Your task to perform on an android device: open sync settings in chrome Image 0: 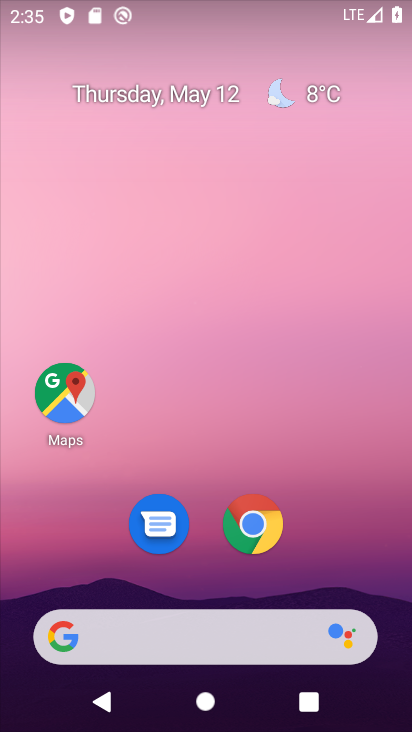
Step 0: click (258, 528)
Your task to perform on an android device: open sync settings in chrome Image 1: 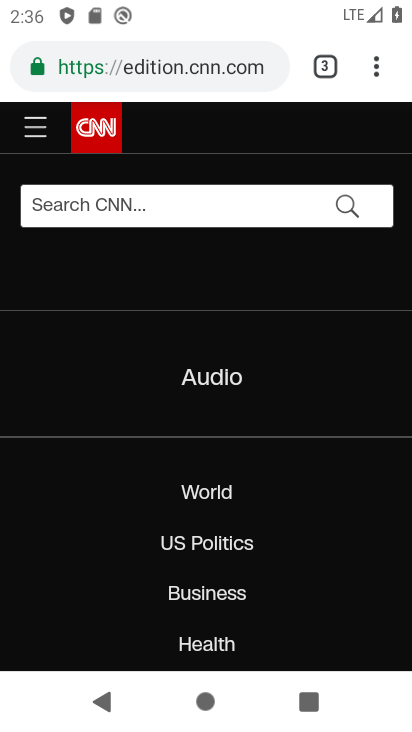
Step 1: click (372, 60)
Your task to perform on an android device: open sync settings in chrome Image 2: 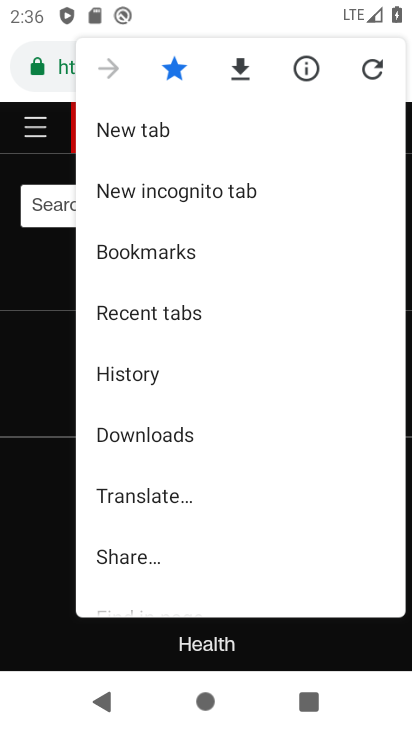
Step 2: drag from (278, 408) to (263, 165)
Your task to perform on an android device: open sync settings in chrome Image 3: 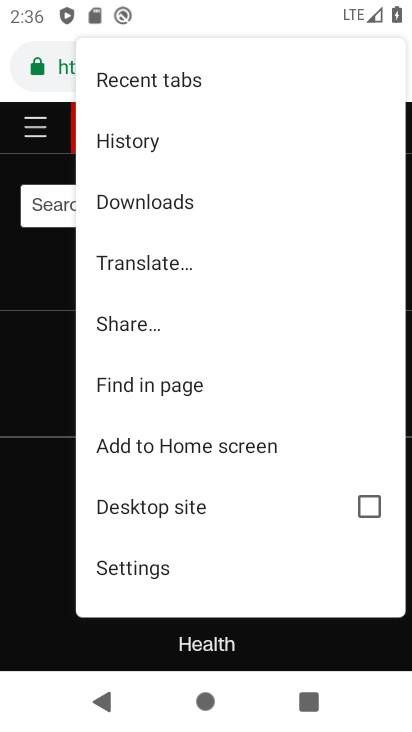
Step 3: click (156, 568)
Your task to perform on an android device: open sync settings in chrome Image 4: 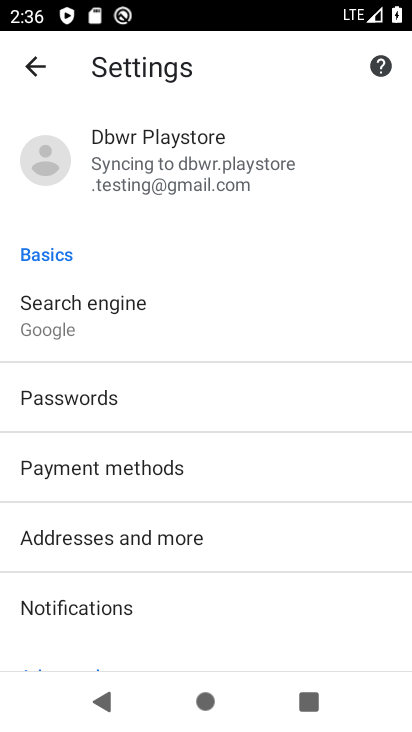
Step 4: click (196, 172)
Your task to perform on an android device: open sync settings in chrome Image 5: 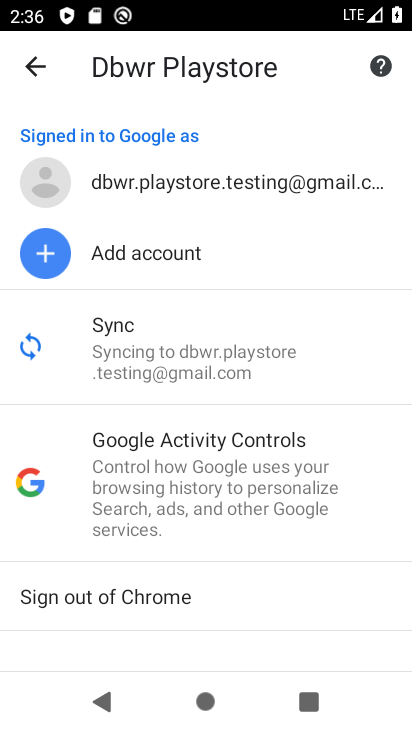
Step 5: click (166, 341)
Your task to perform on an android device: open sync settings in chrome Image 6: 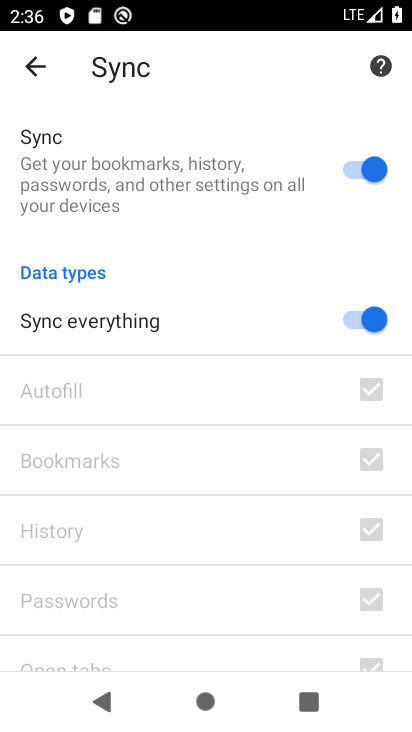
Step 6: task complete